Your task to perform on an android device: Install the Reddit app Image 0: 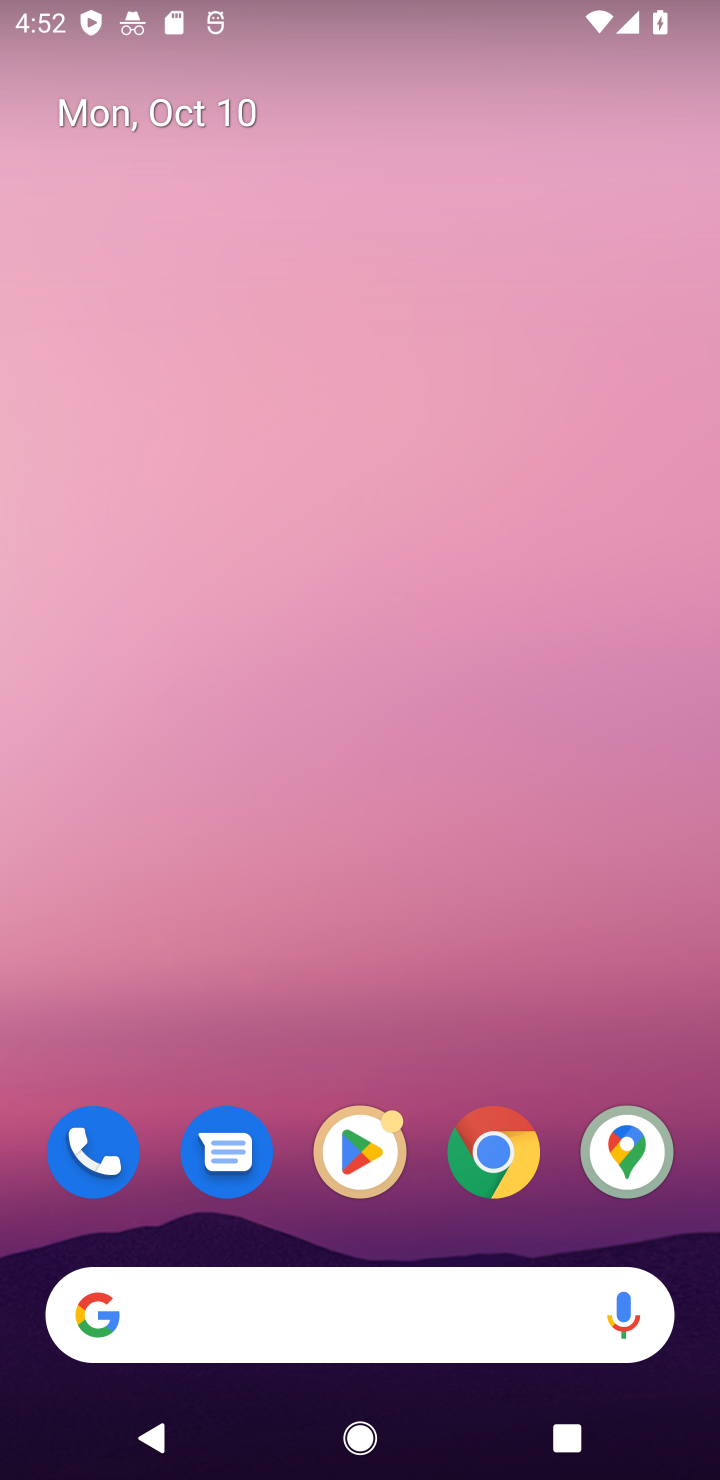
Step 0: click (372, 1155)
Your task to perform on an android device: Install the Reddit app Image 1: 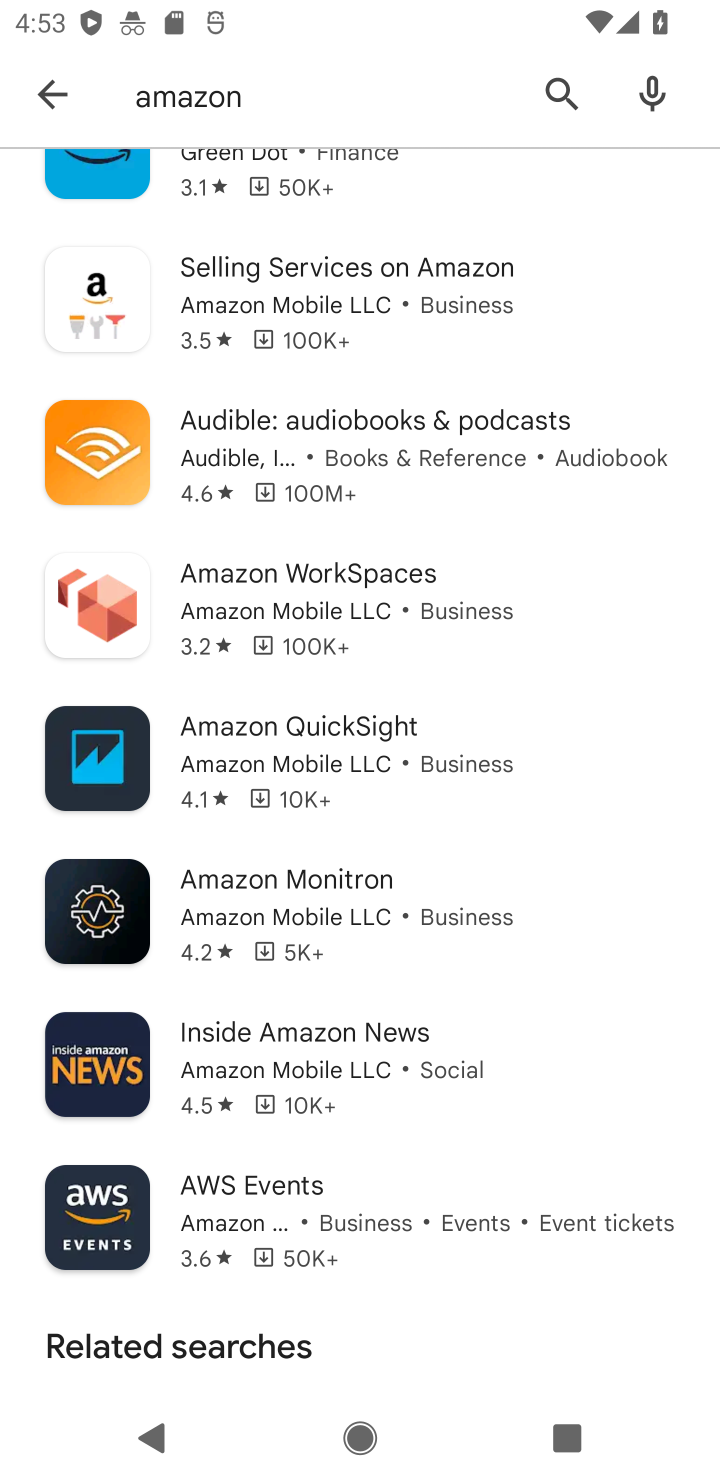
Step 1: click (551, 81)
Your task to perform on an android device: Install the Reddit app Image 2: 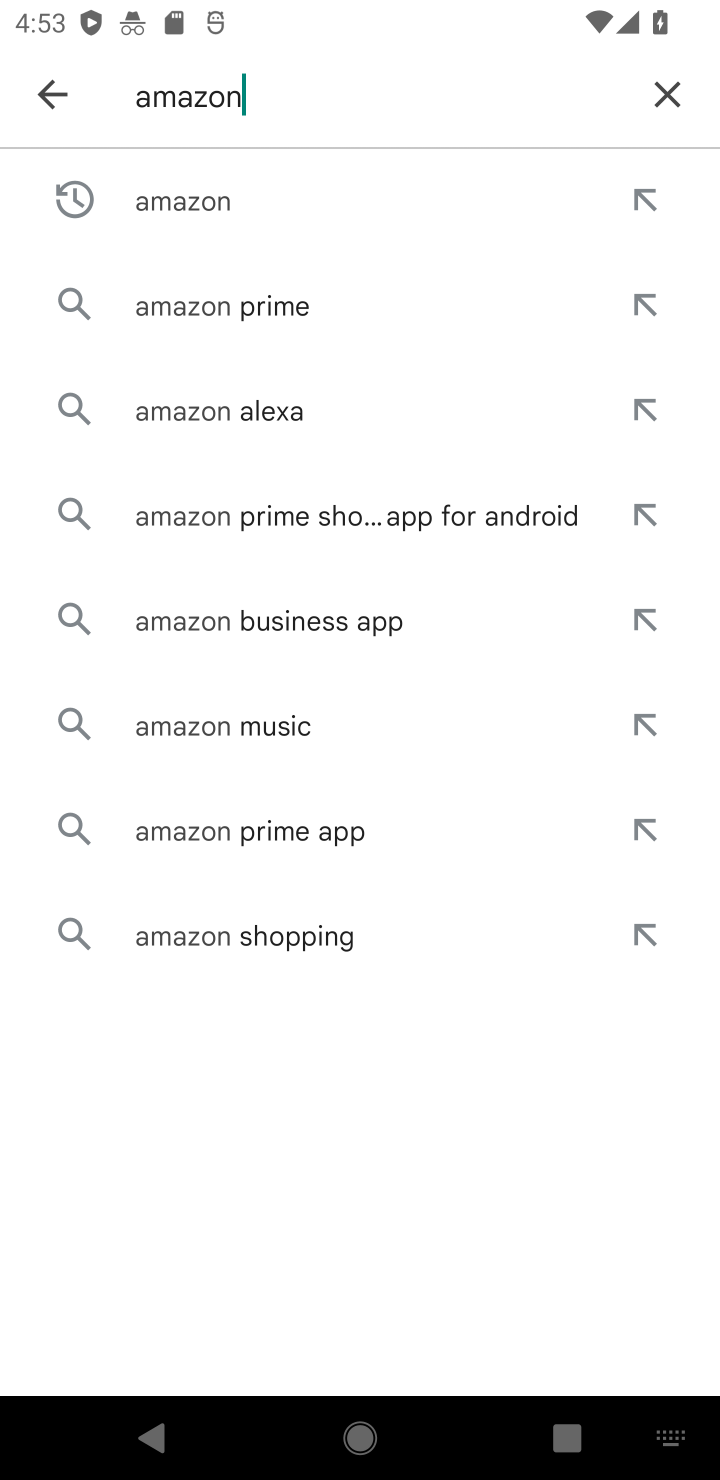
Step 2: click (674, 96)
Your task to perform on an android device: Install the Reddit app Image 3: 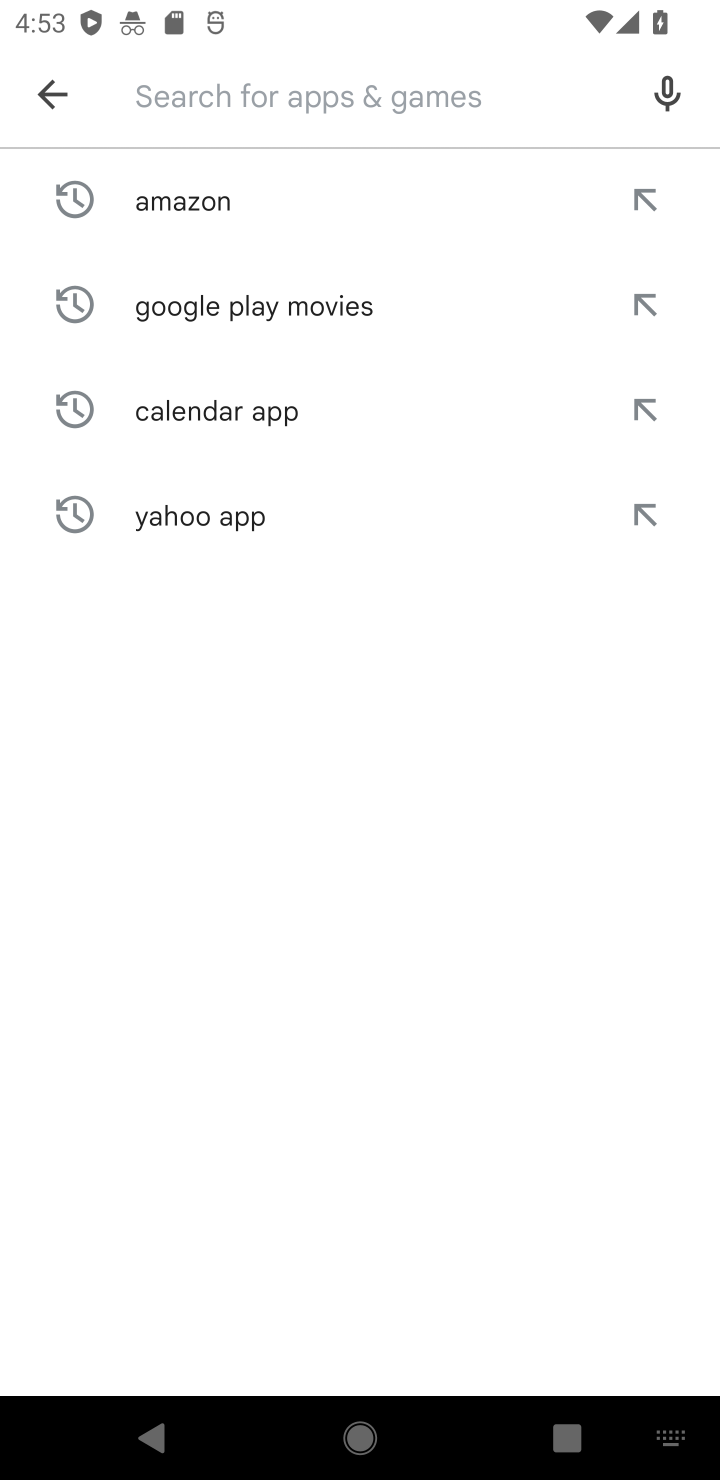
Step 3: type "Reddit app"
Your task to perform on an android device: Install the Reddit app Image 4: 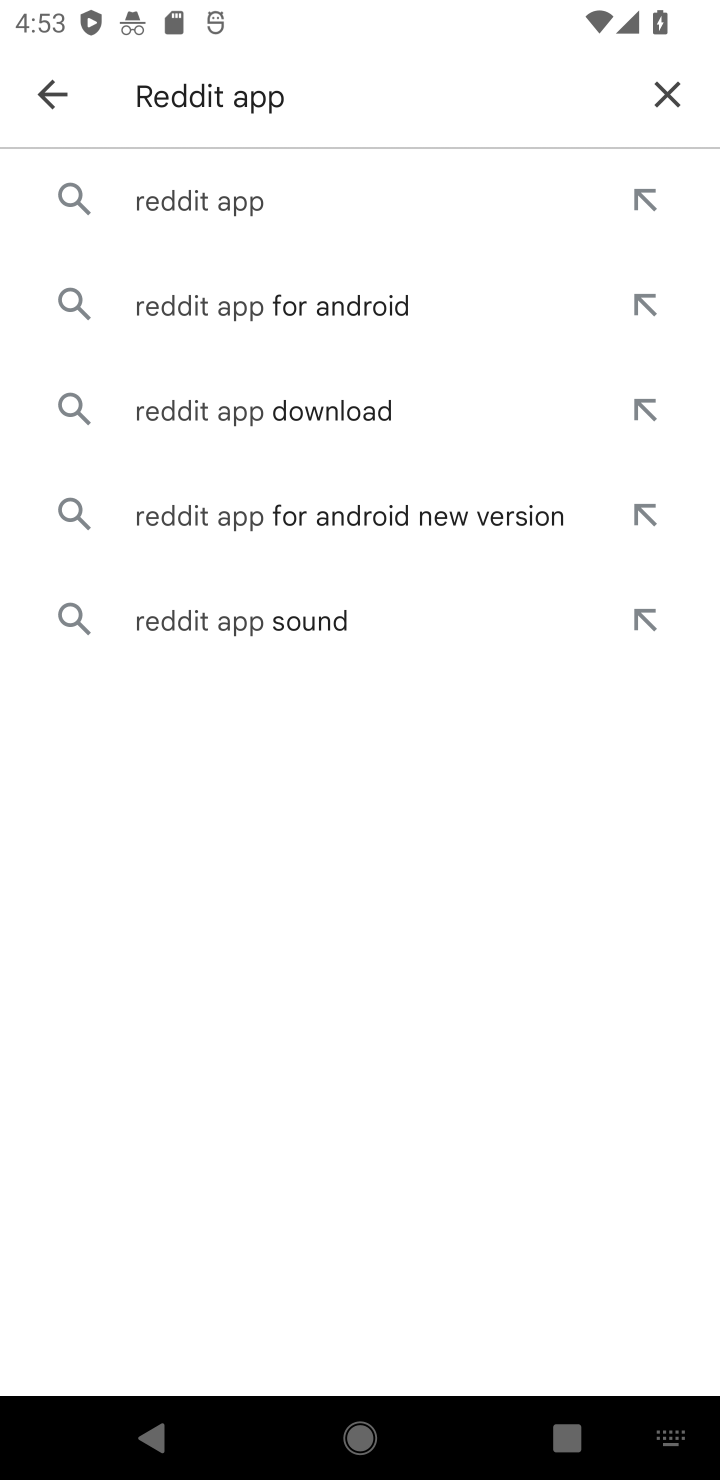
Step 4: click (247, 190)
Your task to perform on an android device: Install the Reddit app Image 5: 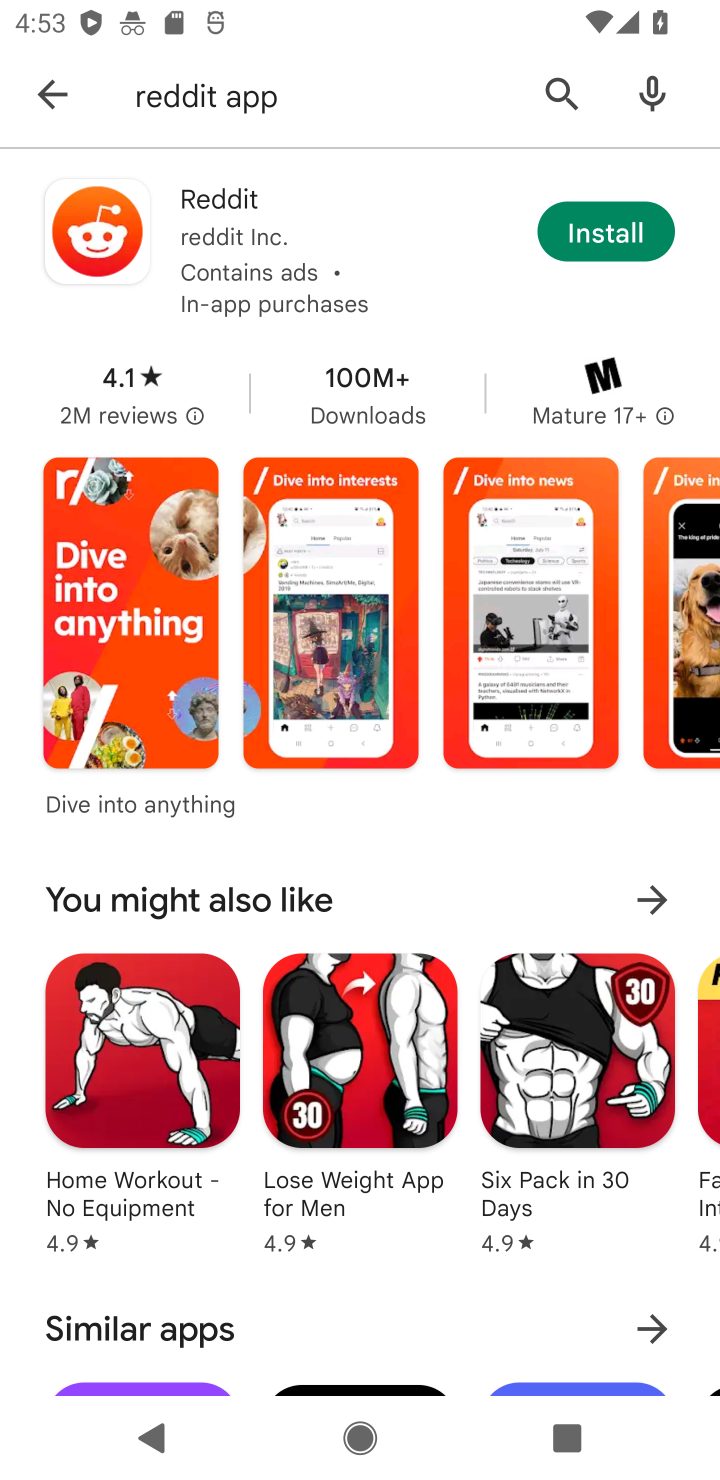
Step 5: click (592, 230)
Your task to perform on an android device: Install the Reddit app Image 6: 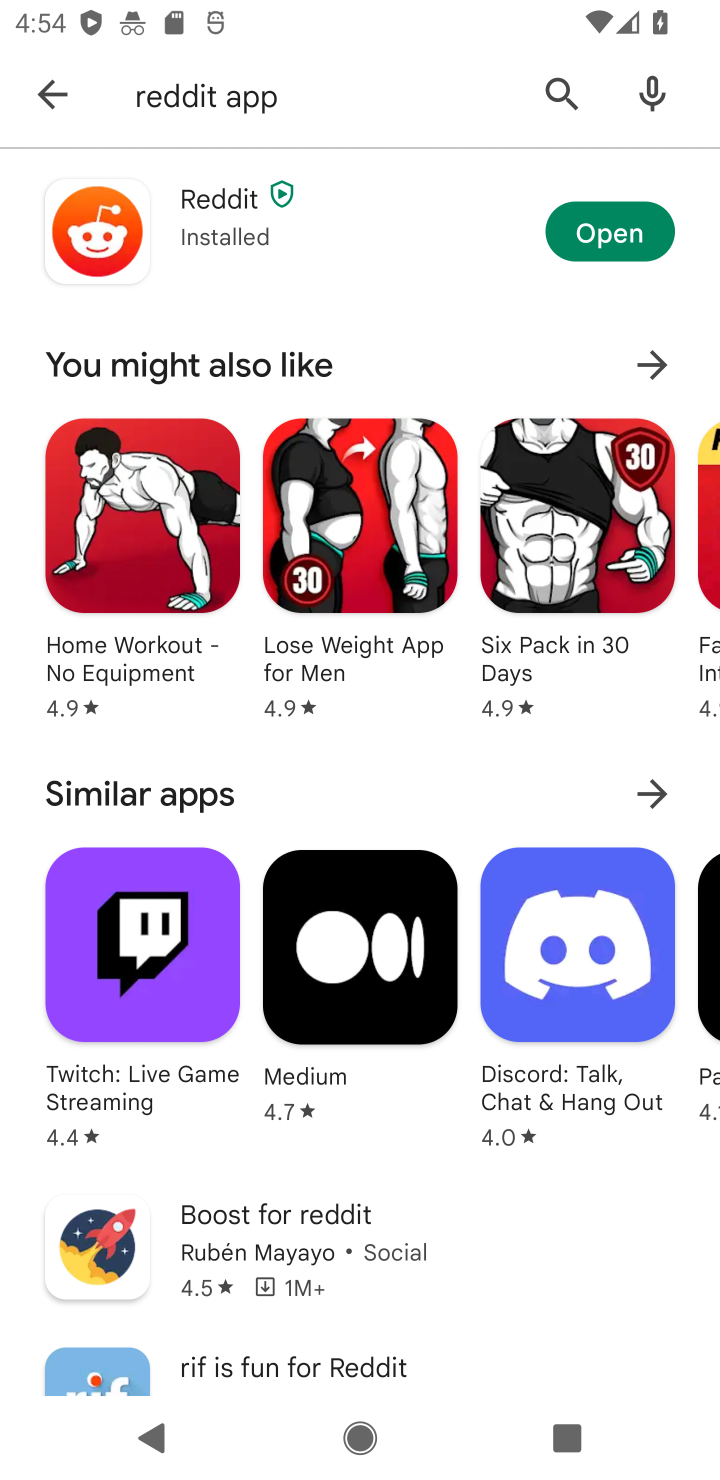
Step 6: task complete